Your task to perform on an android device: Search for vegetarian restaurants on Maps Image 0: 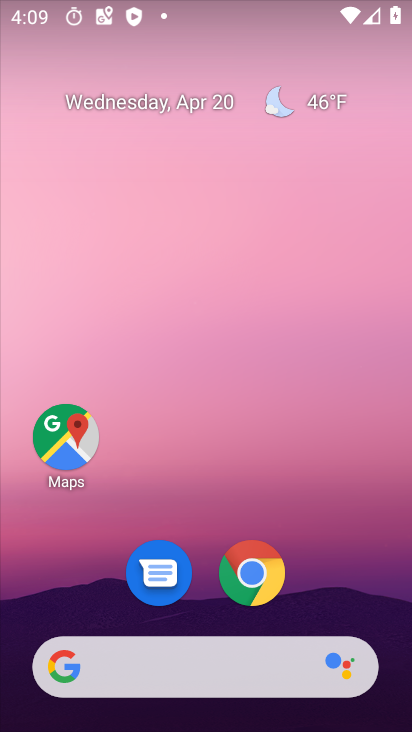
Step 0: click (59, 423)
Your task to perform on an android device: Search for vegetarian restaurants on Maps Image 1: 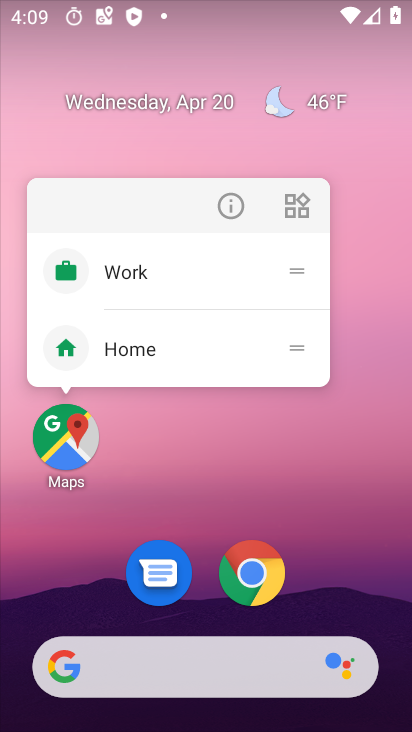
Step 1: click (59, 426)
Your task to perform on an android device: Search for vegetarian restaurants on Maps Image 2: 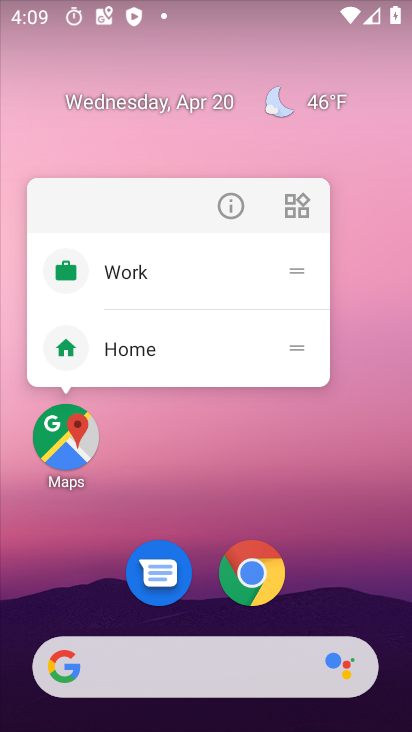
Step 2: click (84, 437)
Your task to perform on an android device: Search for vegetarian restaurants on Maps Image 3: 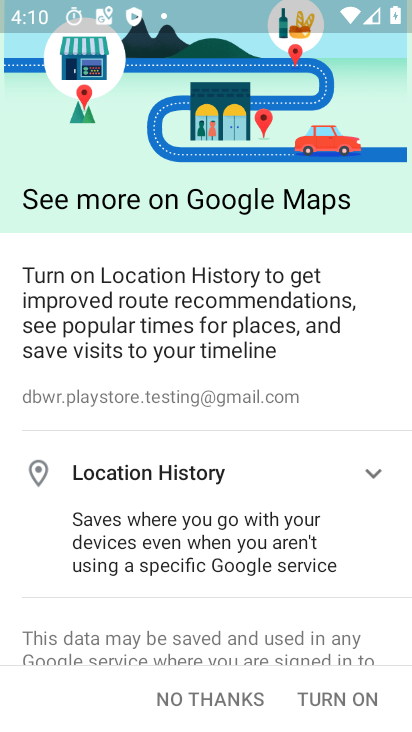
Step 3: click (325, 700)
Your task to perform on an android device: Search for vegetarian restaurants on Maps Image 4: 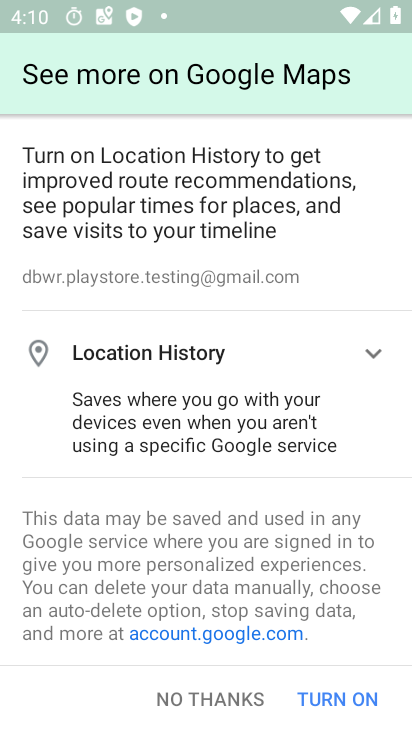
Step 4: press home button
Your task to perform on an android device: Search for vegetarian restaurants on Maps Image 5: 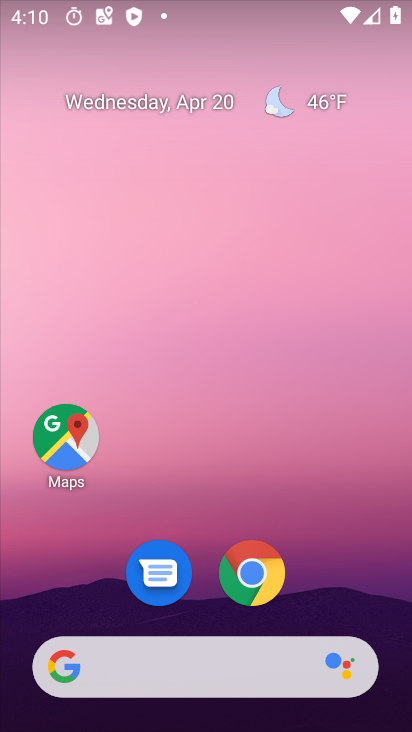
Step 5: click (94, 454)
Your task to perform on an android device: Search for vegetarian restaurants on Maps Image 6: 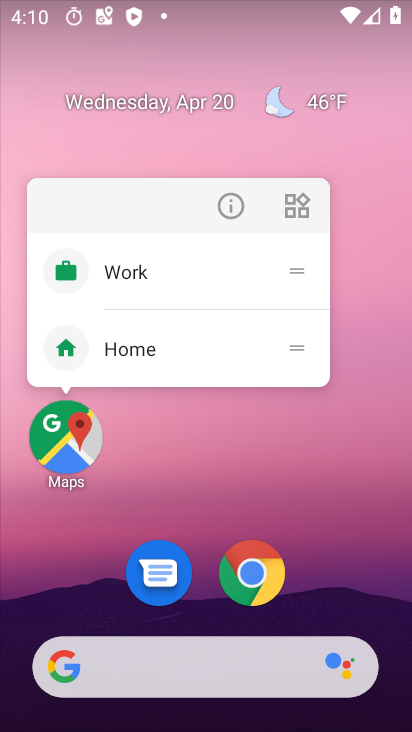
Step 6: click (63, 435)
Your task to perform on an android device: Search for vegetarian restaurants on Maps Image 7: 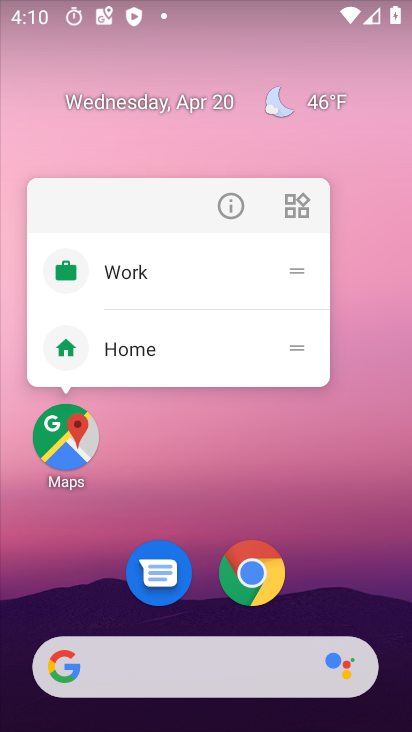
Step 7: click (63, 435)
Your task to perform on an android device: Search for vegetarian restaurants on Maps Image 8: 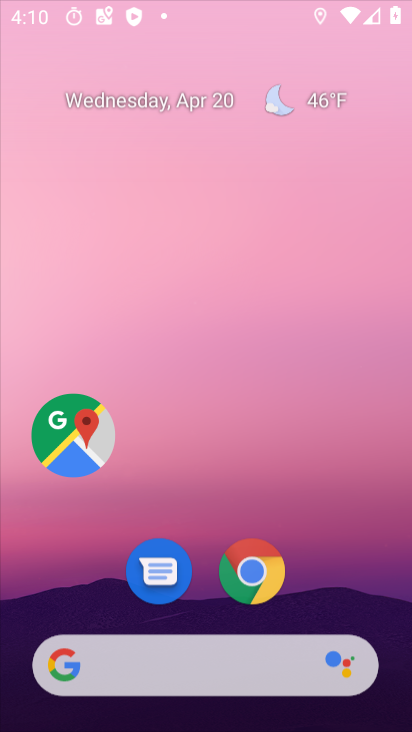
Step 8: click (63, 435)
Your task to perform on an android device: Search for vegetarian restaurants on Maps Image 9: 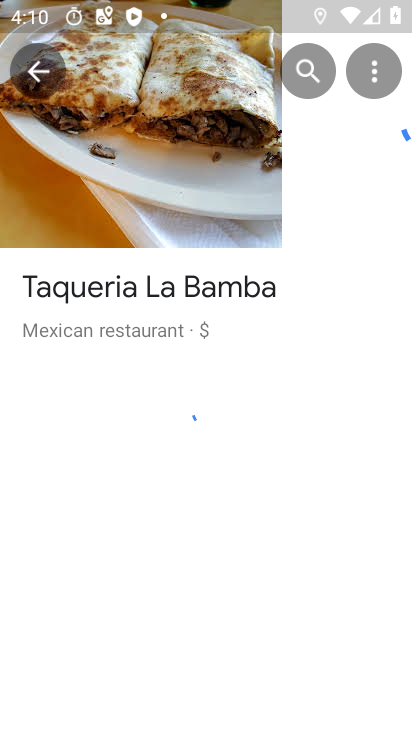
Step 9: click (282, 78)
Your task to perform on an android device: Search for vegetarian restaurants on Maps Image 10: 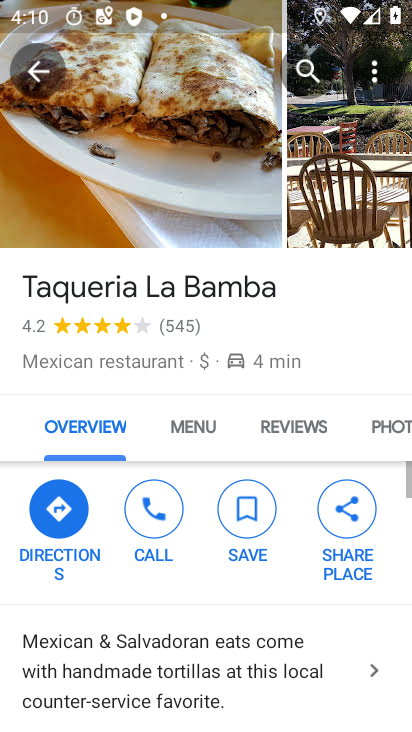
Step 10: click (31, 78)
Your task to perform on an android device: Search for vegetarian restaurants on Maps Image 11: 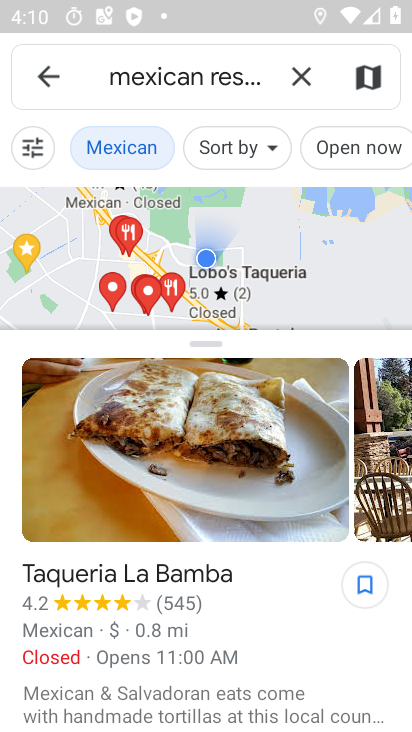
Step 11: click (292, 73)
Your task to perform on an android device: Search for vegetarian restaurants on Maps Image 12: 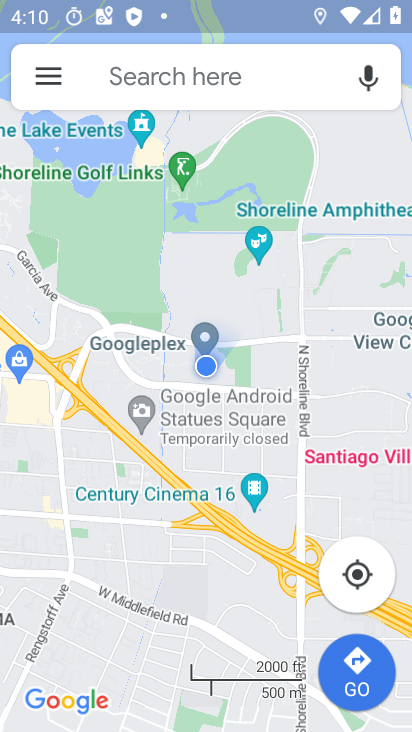
Step 12: click (146, 74)
Your task to perform on an android device: Search for vegetarian restaurants on Maps Image 13: 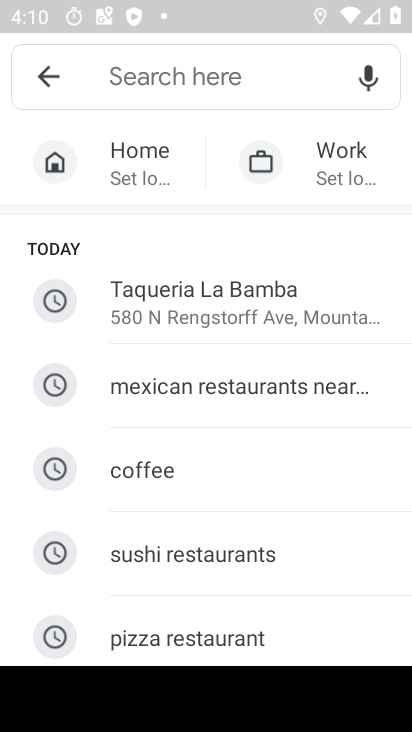
Step 13: type "vegetarian restaurants"
Your task to perform on an android device: Search for vegetarian restaurants on Maps Image 14: 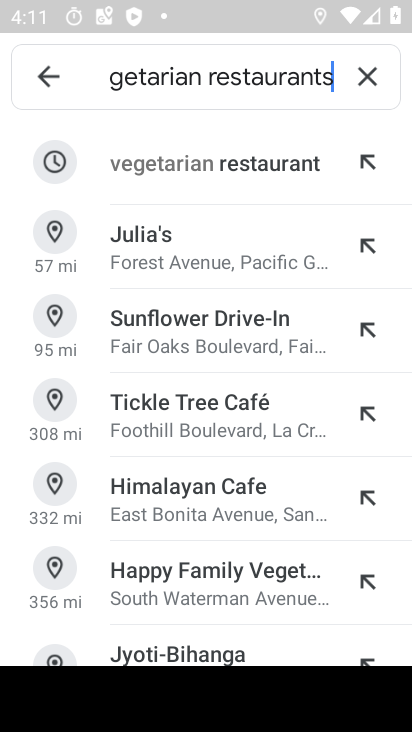
Step 14: click (211, 169)
Your task to perform on an android device: Search for vegetarian restaurants on Maps Image 15: 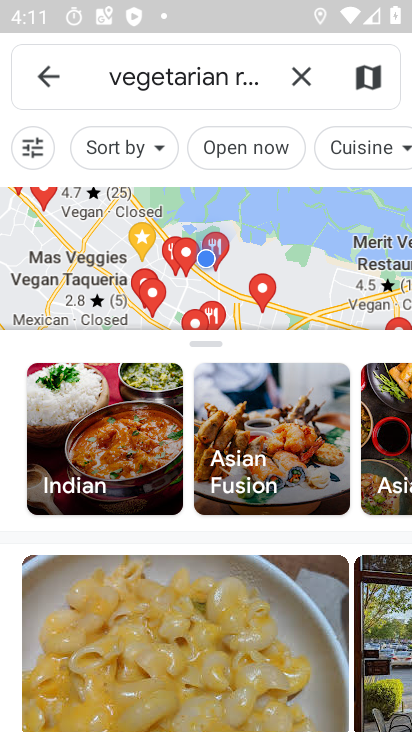
Step 15: task complete